Your task to perform on an android device: toggle translation in the chrome app Image 0: 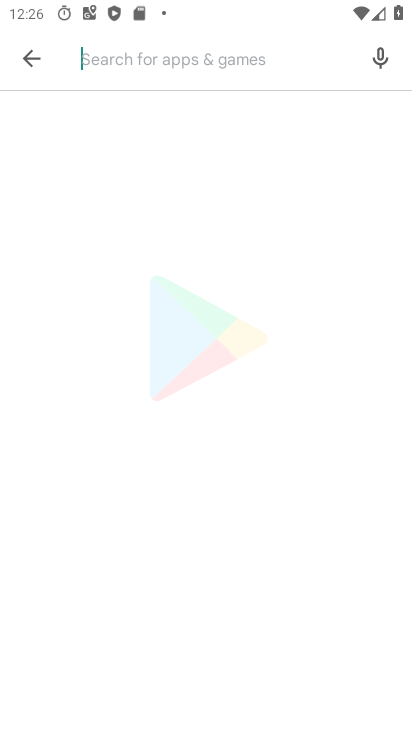
Step 0: drag from (229, 716) to (142, 266)
Your task to perform on an android device: toggle translation in the chrome app Image 1: 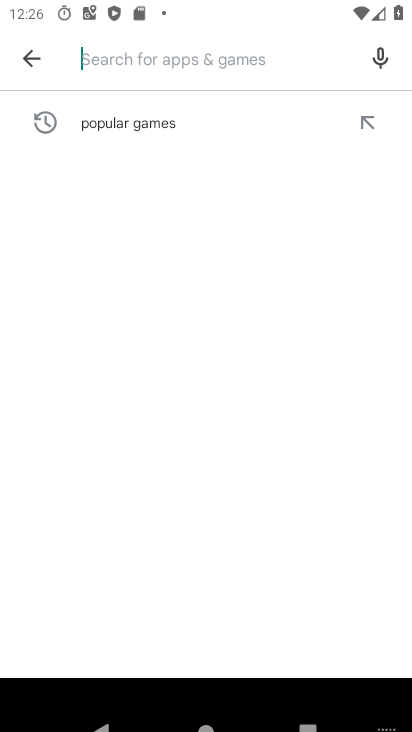
Step 1: click (34, 59)
Your task to perform on an android device: toggle translation in the chrome app Image 2: 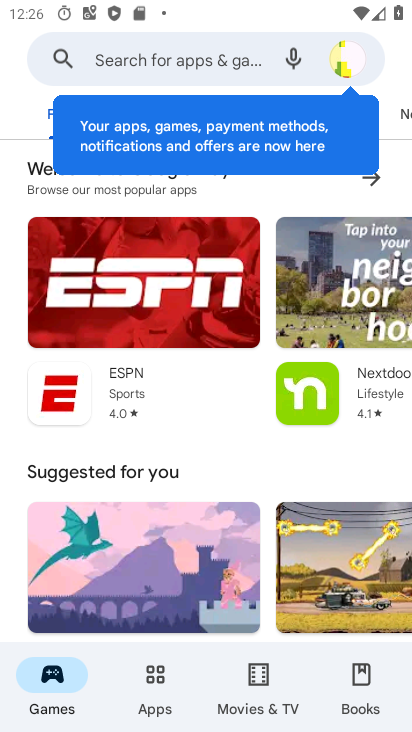
Step 2: press back button
Your task to perform on an android device: toggle translation in the chrome app Image 3: 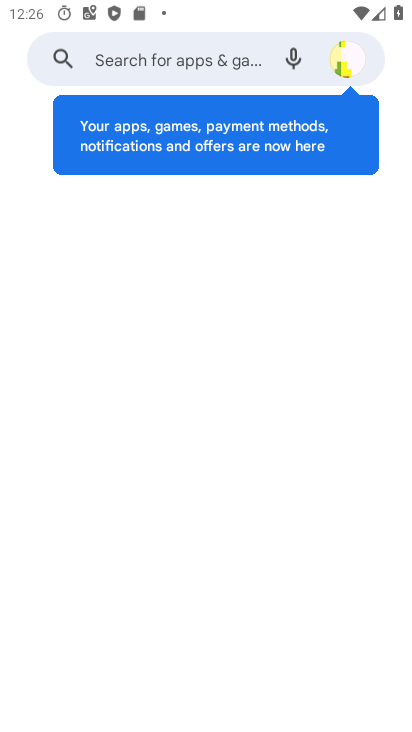
Step 3: press home button
Your task to perform on an android device: toggle translation in the chrome app Image 4: 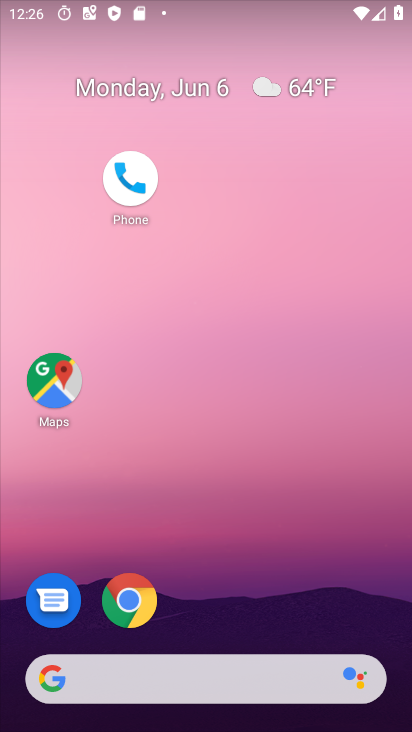
Step 4: drag from (226, 688) to (131, 98)
Your task to perform on an android device: toggle translation in the chrome app Image 5: 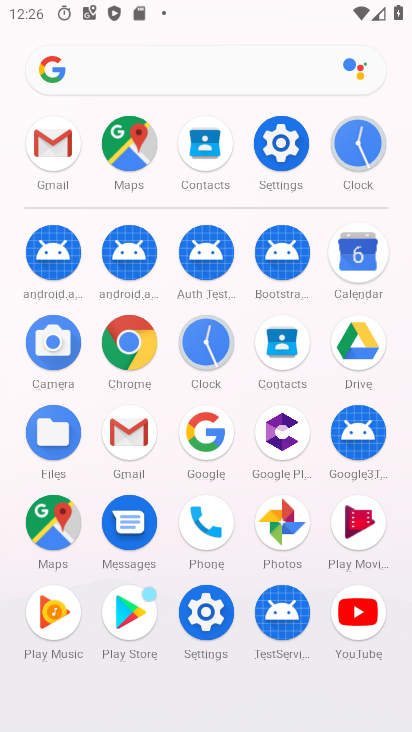
Step 5: click (118, 360)
Your task to perform on an android device: toggle translation in the chrome app Image 6: 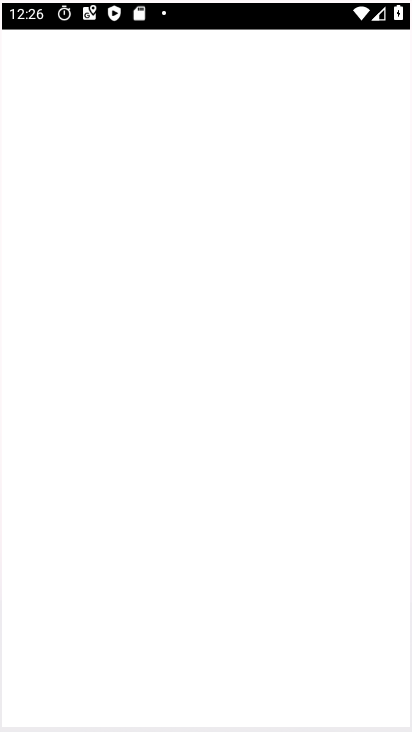
Step 6: click (133, 348)
Your task to perform on an android device: toggle translation in the chrome app Image 7: 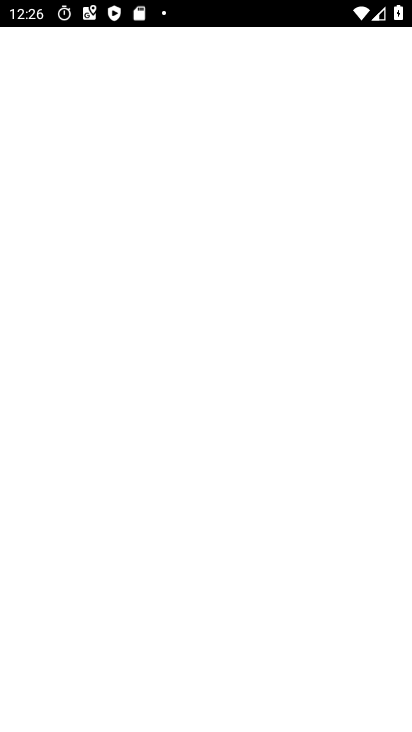
Step 7: click (134, 348)
Your task to perform on an android device: toggle translation in the chrome app Image 8: 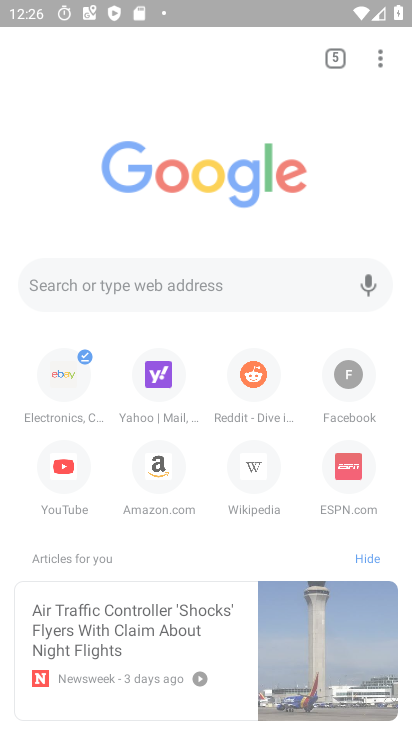
Step 8: click (135, 341)
Your task to perform on an android device: toggle translation in the chrome app Image 9: 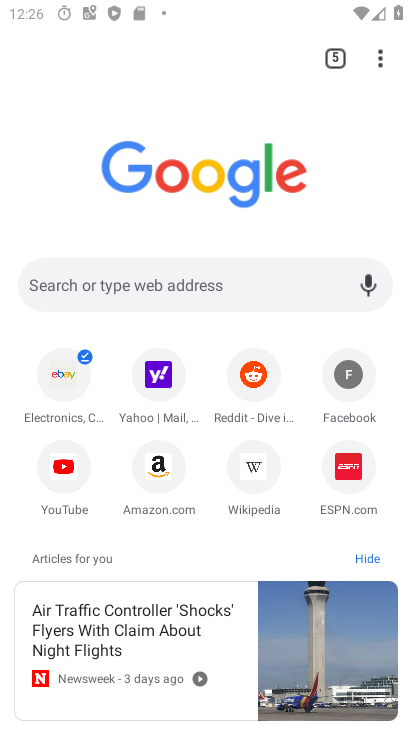
Step 9: click (123, 319)
Your task to perform on an android device: toggle translation in the chrome app Image 10: 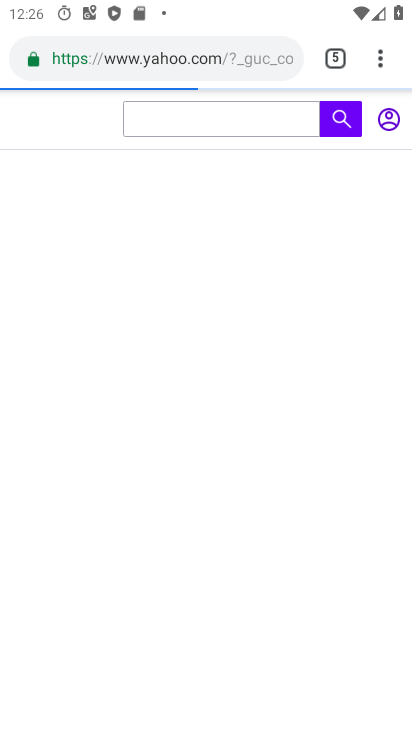
Step 10: click (378, 58)
Your task to perform on an android device: toggle translation in the chrome app Image 11: 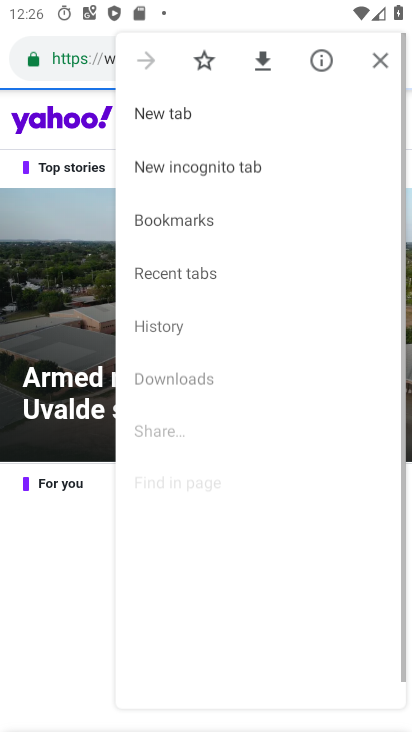
Step 11: drag from (378, 58) to (161, 650)
Your task to perform on an android device: toggle translation in the chrome app Image 12: 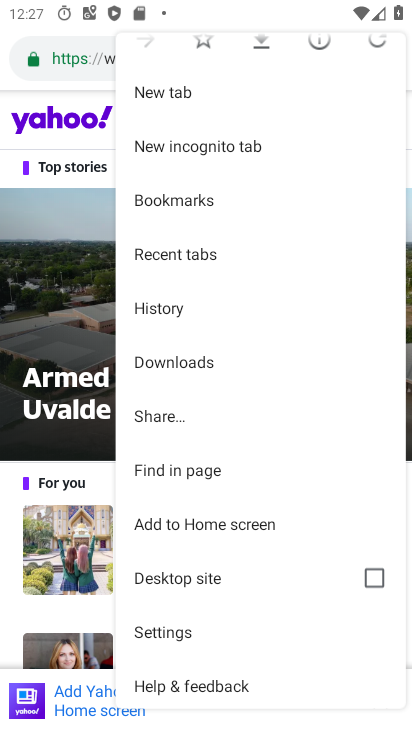
Step 12: click (158, 653)
Your task to perform on an android device: toggle translation in the chrome app Image 13: 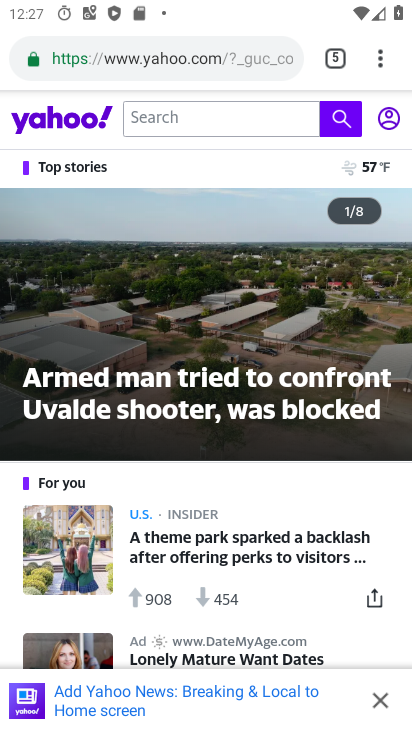
Step 13: click (157, 630)
Your task to perform on an android device: toggle translation in the chrome app Image 14: 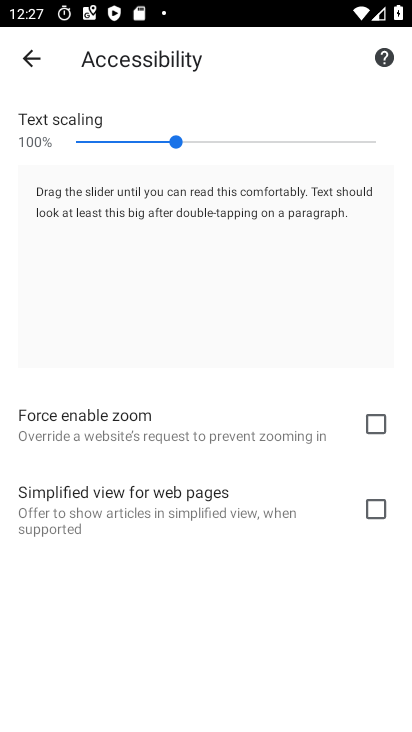
Step 14: drag from (174, 550) to (87, 234)
Your task to perform on an android device: toggle translation in the chrome app Image 15: 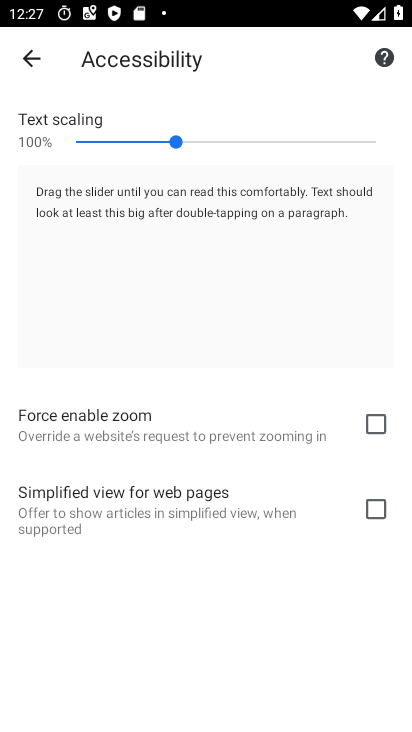
Step 15: drag from (146, 421) to (124, 168)
Your task to perform on an android device: toggle translation in the chrome app Image 16: 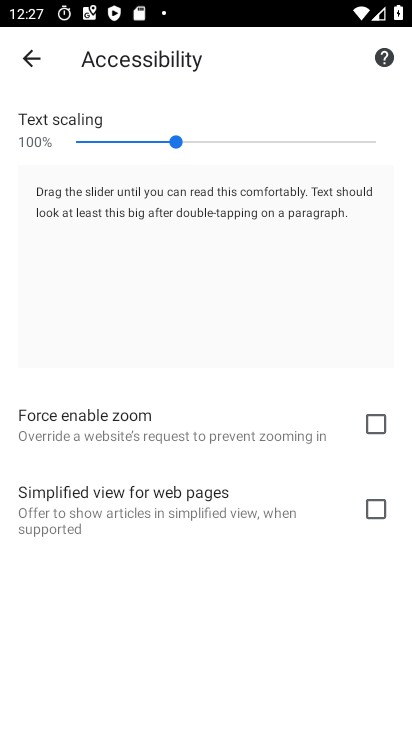
Step 16: drag from (187, 405) to (133, 71)
Your task to perform on an android device: toggle translation in the chrome app Image 17: 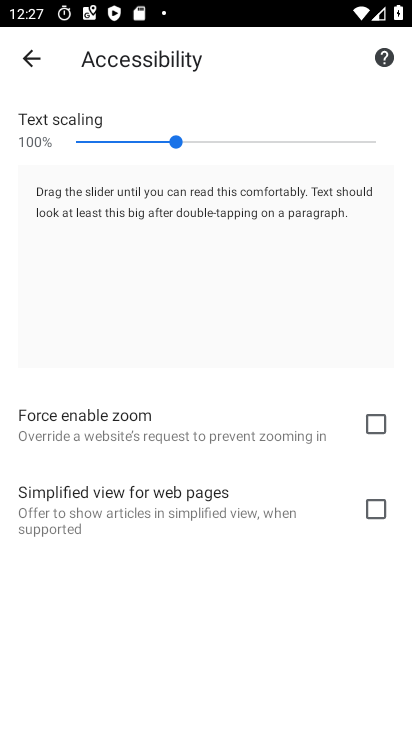
Step 17: drag from (181, 385) to (181, 90)
Your task to perform on an android device: toggle translation in the chrome app Image 18: 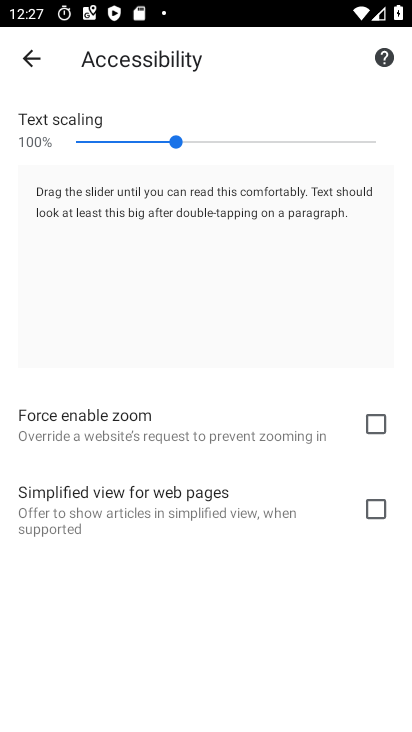
Step 18: click (14, 54)
Your task to perform on an android device: toggle translation in the chrome app Image 19: 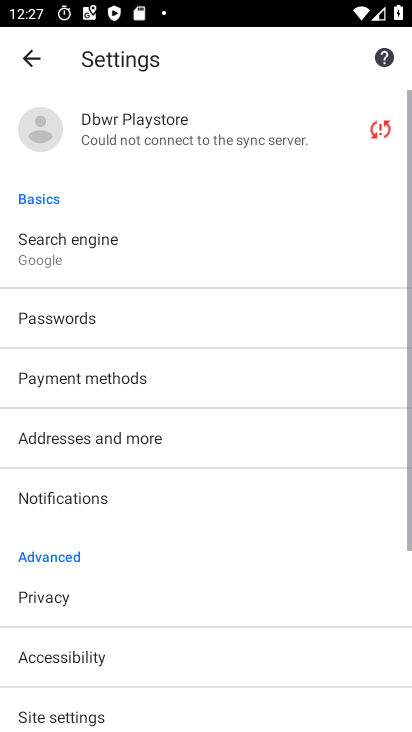
Step 19: drag from (132, 519) to (90, 243)
Your task to perform on an android device: toggle translation in the chrome app Image 20: 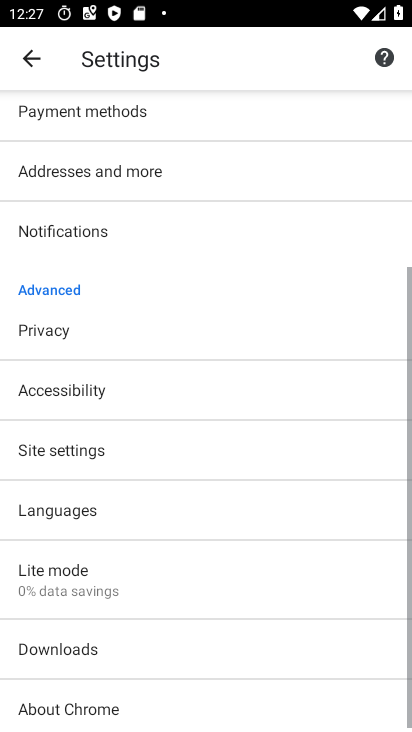
Step 20: drag from (154, 556) to (119, 193)
Your task to perform on an android device: toggle translation in the chrome app Image 21: 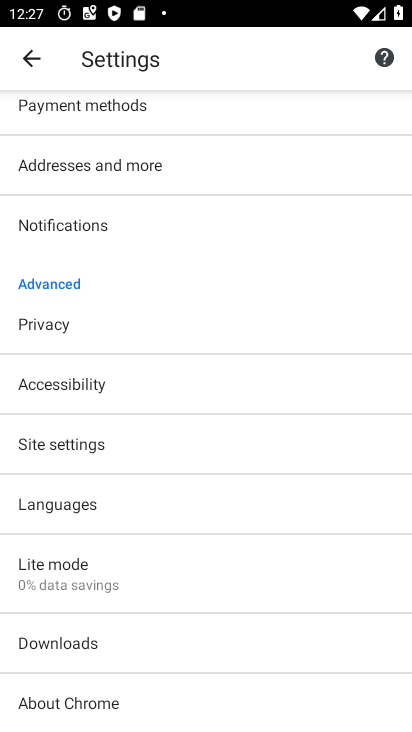
Step 21: click (52, 493)
Your task to perform on an android device: toggle translation in the chrome app Image 22: 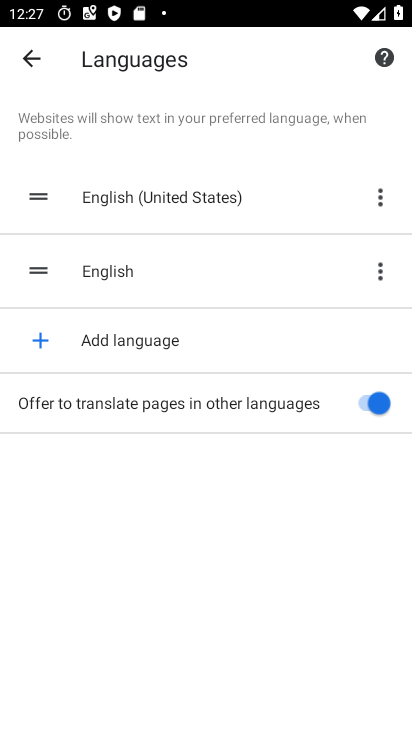
Step 22: click (375, 405)
Your task to perform on an android device: toggle translation in the chrome app Image 23: 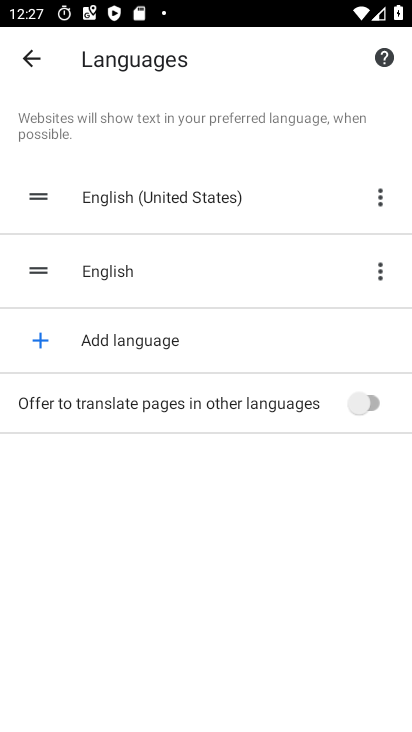
Step 23: task complete